Your task to perform on an android device: turn off notifications settings in the gmail app Image 0: 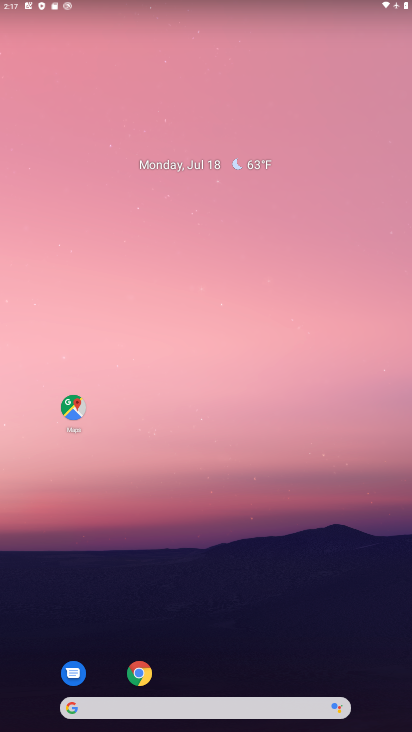
Step 0: drag from (268, 606) to (265, 227)
Your task to perform on an android device: turn off notifications settings in the gmail app Image 1: 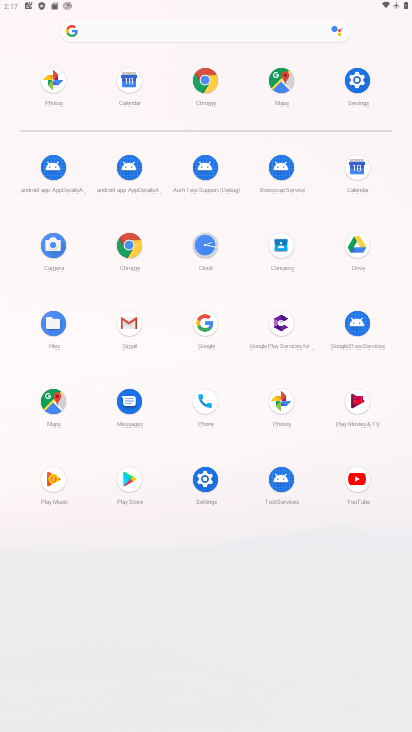
Step 1: click (121, 319)
Your task to perform on an android device: turn off notifications settings in the gmail app Image 2: 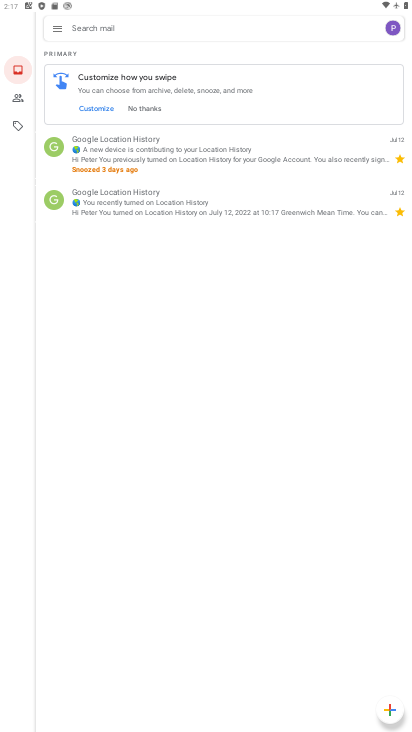
Step 2: click (49, 25)
Your task to perform on an android device: turn off notifications settings in the gmail app Image 3: 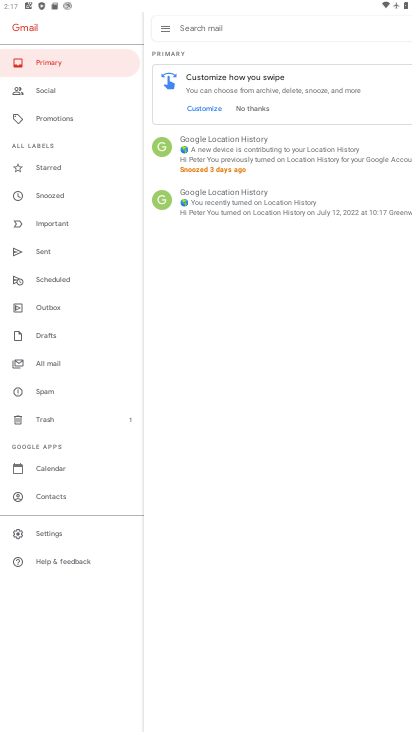
Step 3: click (64, 537)
Your task to perform on an android device: turn off notifications settings in the gmail app Image 4: 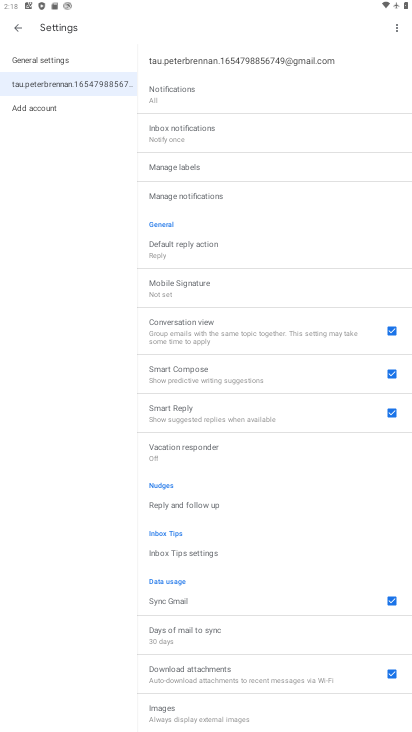
Step 4: click (187, 82)
Your task to perform on an android device: turn off notifications settings in the gmail app Image 5: 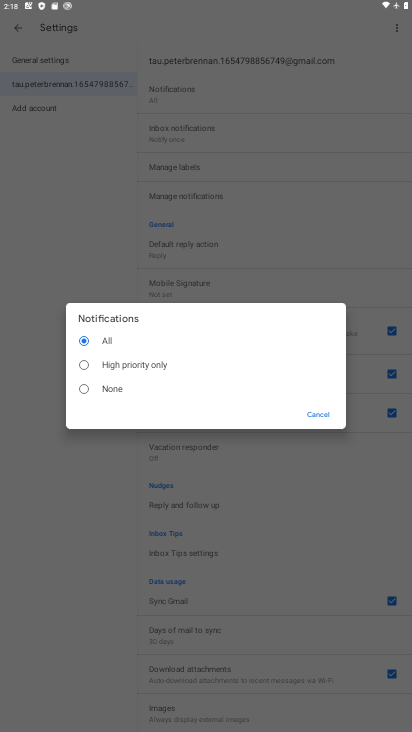
Step 5: click (127, 385)
Your task to perform on an android device: turn off notifications settings in the gmail app Image 6: 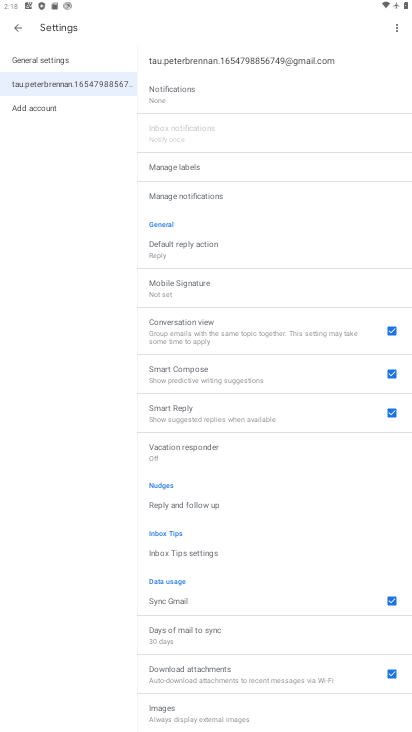
Step 6: task complete